Your task to perform on an android device: set an alarm Image 0: 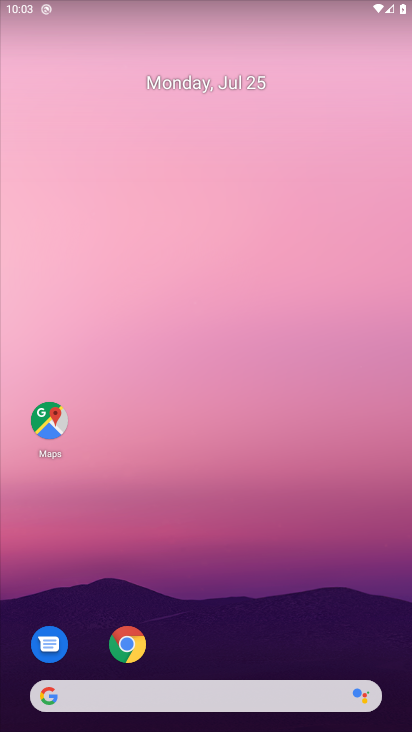
Step 0: drag from (331, 549) to (371, 13)
Your task to perform on an android device: set an alarm Image 1: 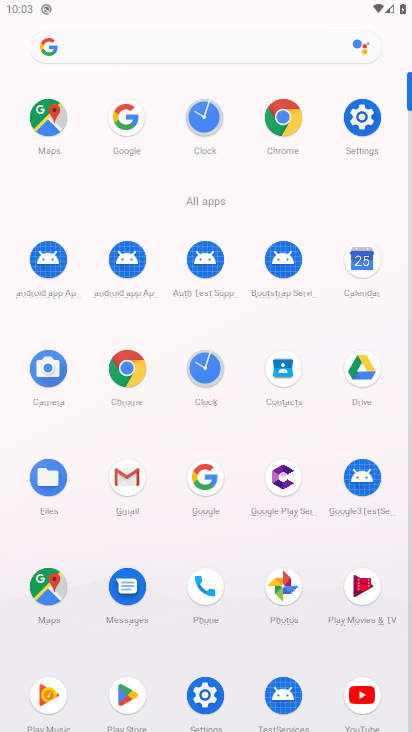
Step 1: click (202, 363)
Your task to perform on an android device: set an alarm Image 2: 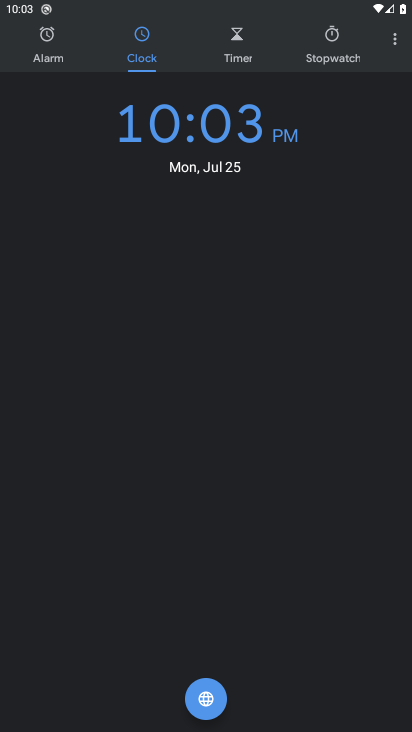
Step 2: click (40, 46)
Your task to perform on an android device: set an alarm Image 3: 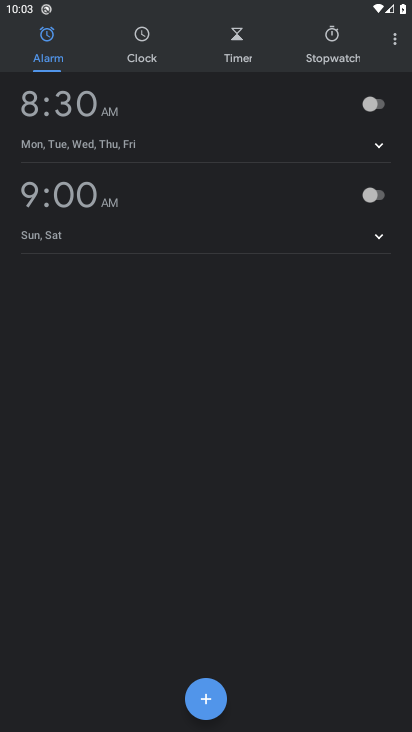
Step 3: task complete